Your task to perform on an android device: Search for vegetarian restaurants on Maps Image 0: 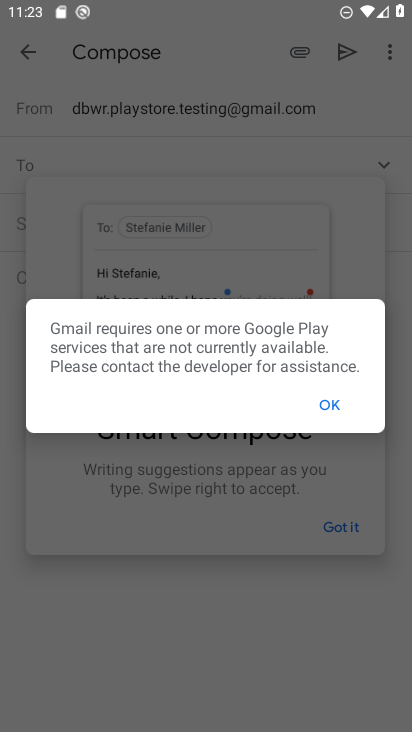
Step 0: press home button
Your task to perform on an android device: Search for vegetarian restaurants on Maps Image 1: 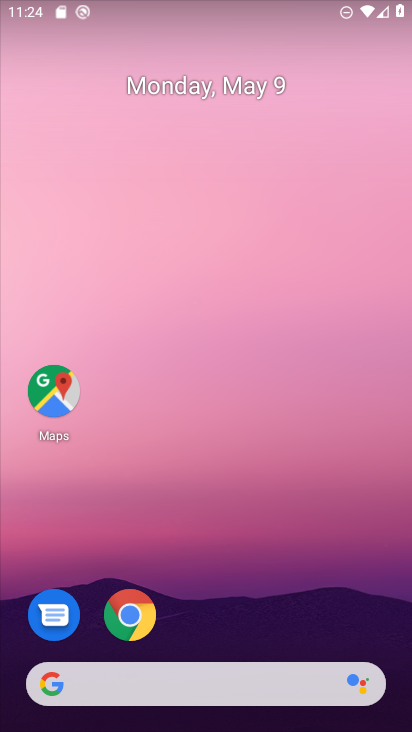
Step 1: drag from (262, 703) to (227, 286)
Your task to perform on an android device: Search for vegetarian restaurants on Maps Image 2: 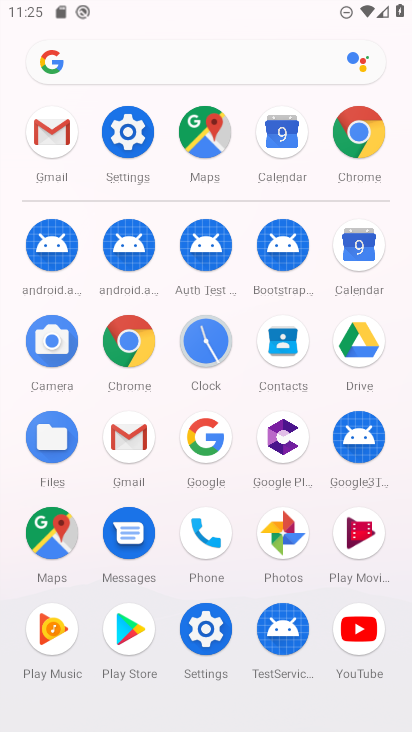
Step 2: click (190, 136)
Your task to perform on an android device: Search for vegetarian restaurants on Maps Image 3: 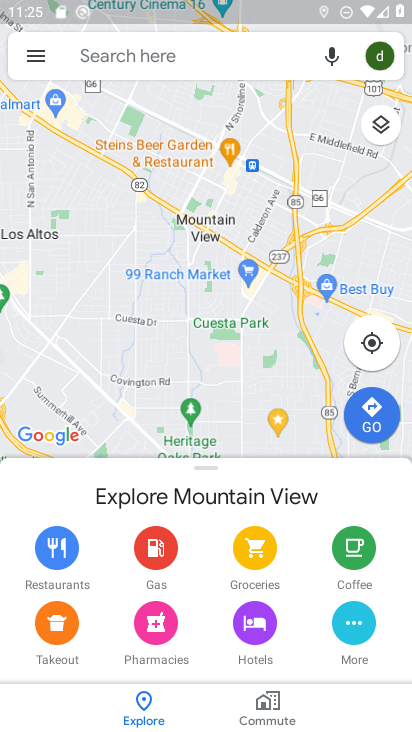
Step 3: task complete